Your task to perform on an android device: check storage Image 0: 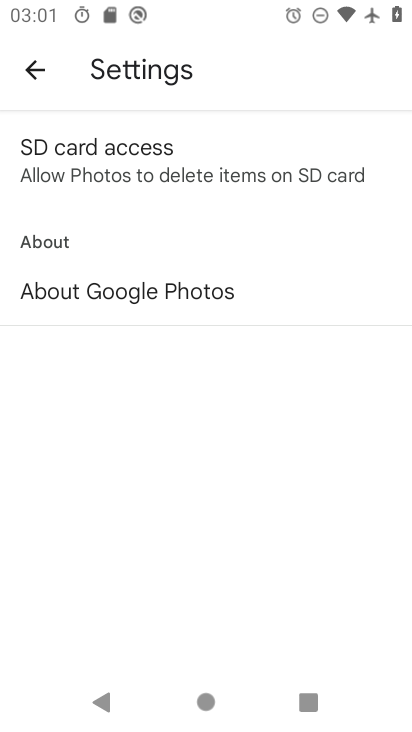
Step 0: press home button
Your task to perform on an android device: check storage Image 1: 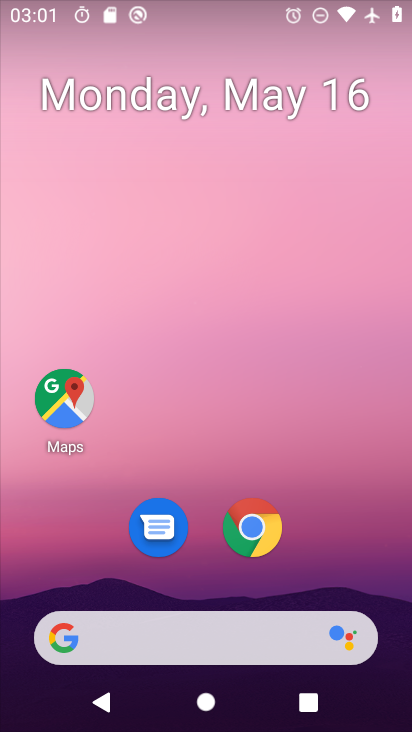
Step 1: drag from (164, 628) to (313, 137)
Your task to perform on an android device: check storage Image 2: 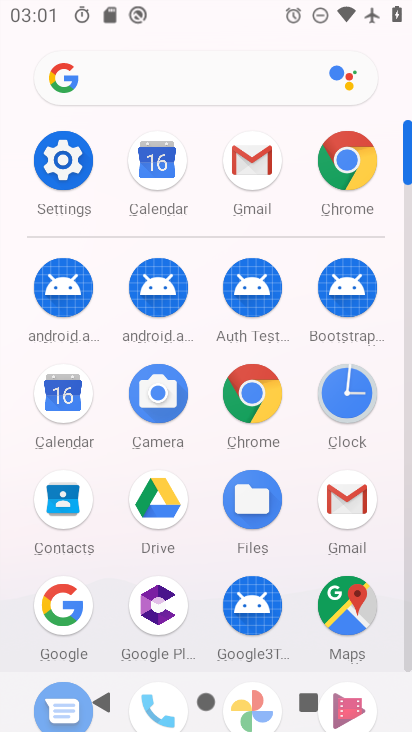
Step 2: click (47, 162)
Your task to perform on an android device: check storage Image 3: 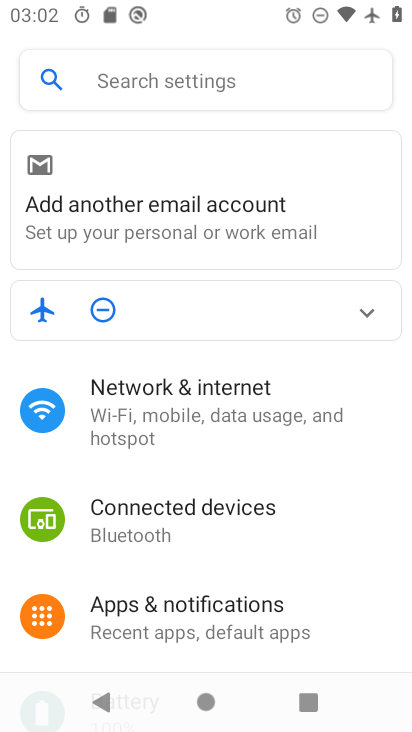
Step 3: drag from (160, 591) to (350, 85)
Your task to perform on an android device: check storage Image 4: 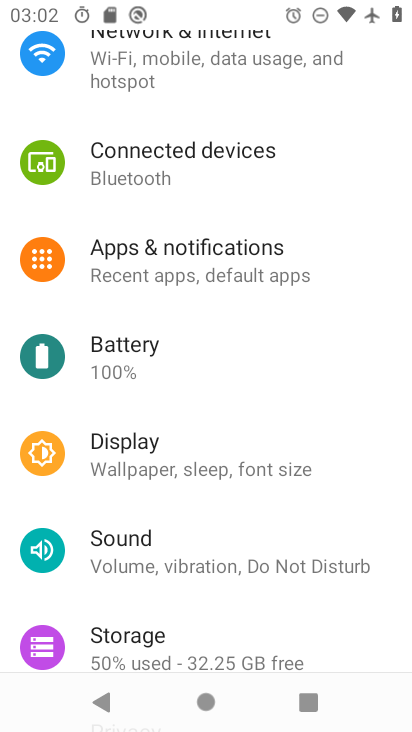
Step 4: drag from (221, 527) to (300, 155)
Your task to perform on an android device: check storage Image 5: 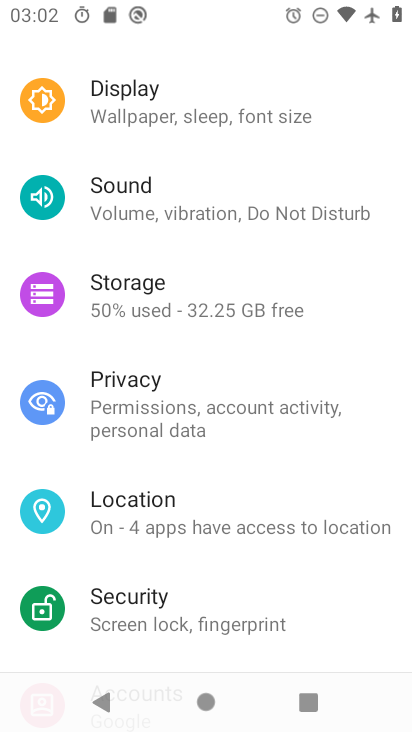
Step 5: click (155, 287)
Your task to perform on an android device: check storage Image 6: 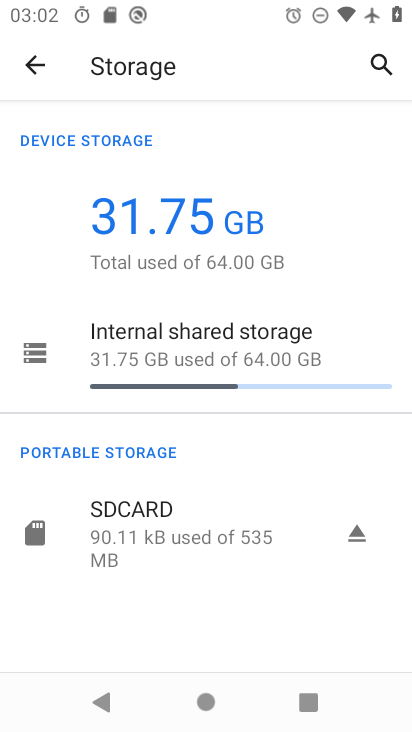
Step 6: task complete